Your task to perform on an android device: turn off location history Image 0: 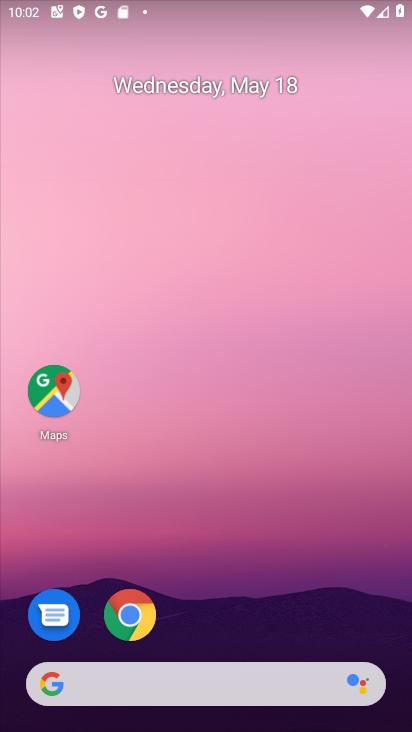
Step 0: drag from (243, 650) to (236, 59)
Your task to perform on an android device: turn off location history Image 1: 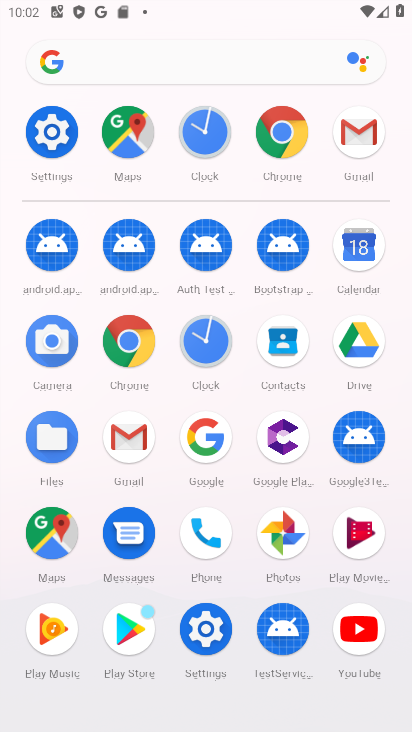
Step 1: click (53, 156)
Your task to perform on an android device: turn off location history Image 2: 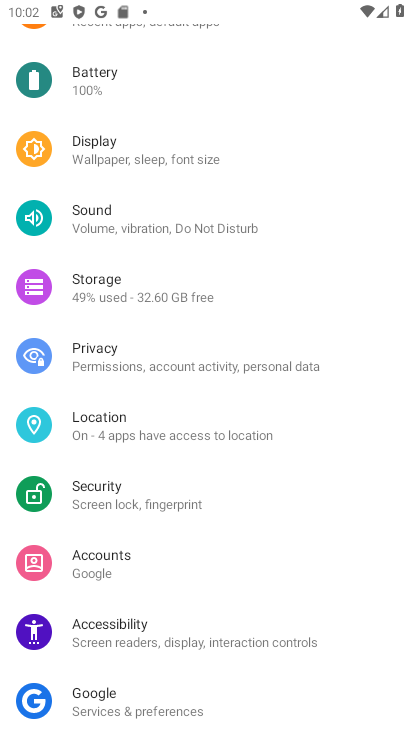
Step 2: click (154, 433)
Your task to perform on an android device: turn off location history Image 3: 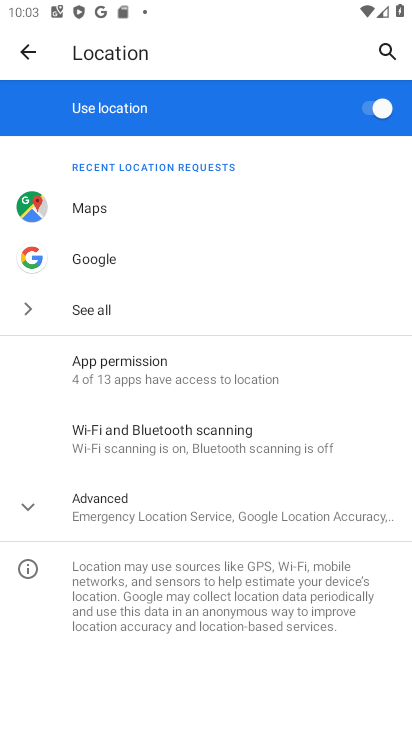
Step 3: click (188, 518)
Your task to perform on an android device: turn off location history Image 4: 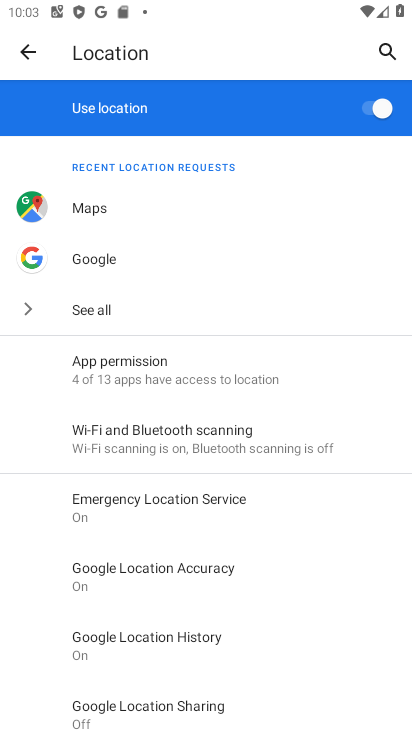
Step 4: click (253, 641)
Your task to perform on an android device: turn off location history Image 5: 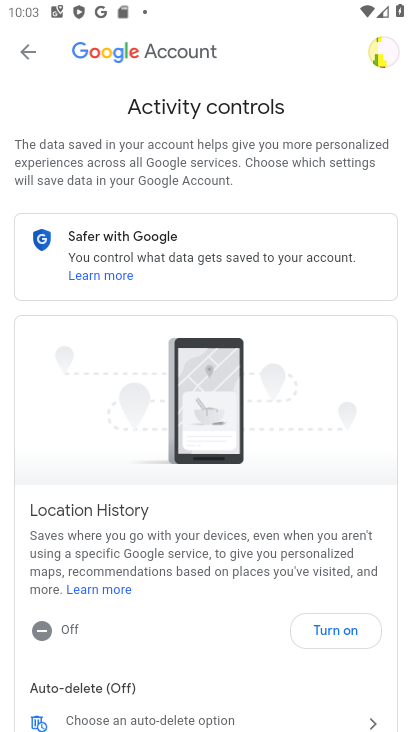
Step 5: task complete